Your task to perform on an android device: Go to calendar. Show me events next week Image 0: 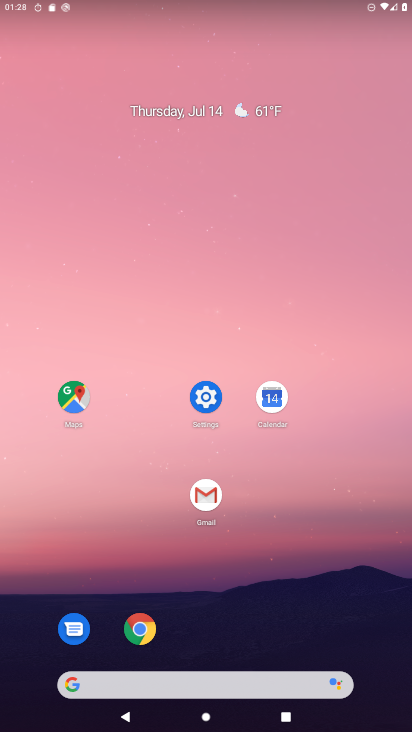
Step 0: click (274, 399)
Your task to perform on an android device: Go to calendar. Show me events next week Image 1: 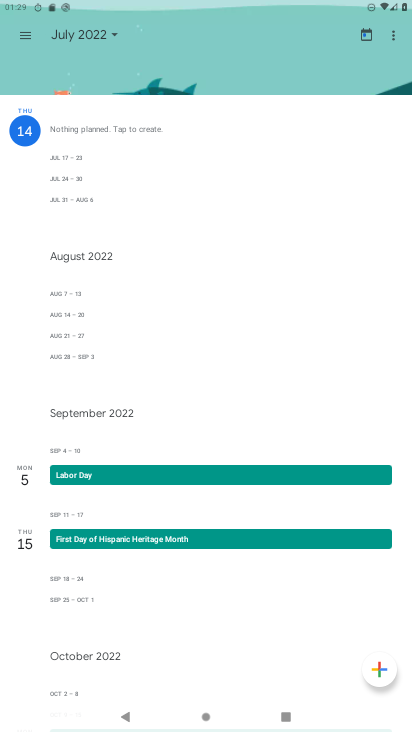
Step 1: click (26, 26)
Your task to perform on an android device: Go to calendar. Show me events next week Image 2: 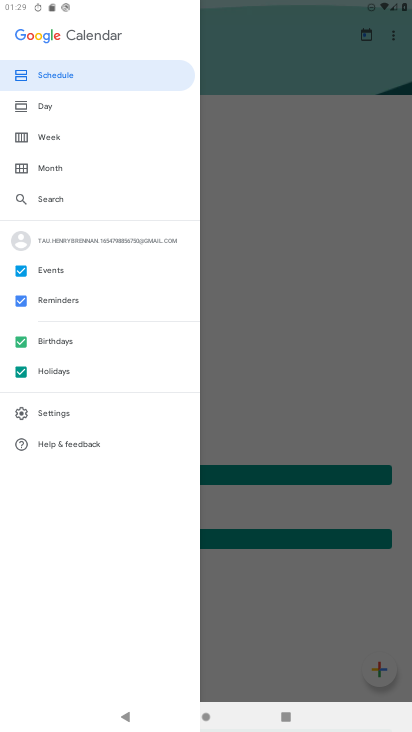
Step 2: click (50, 141)
Your task to perform on an android device: Go to calendar. Show me events next week Image 3: 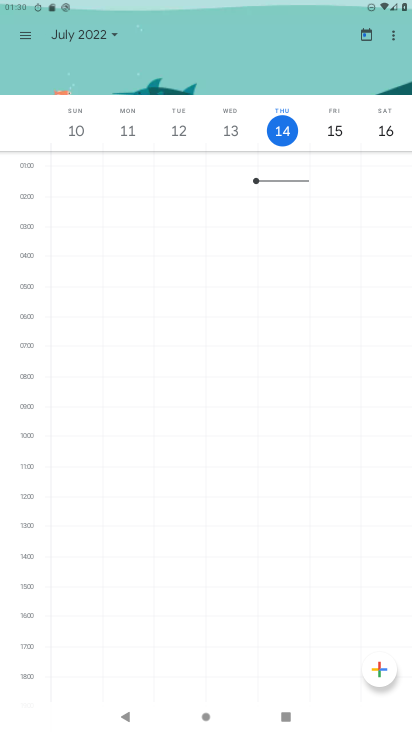
Step 3: click (113, 39)
Your task to perform on an android device: Go to calendar. Show me events next week Image 4: 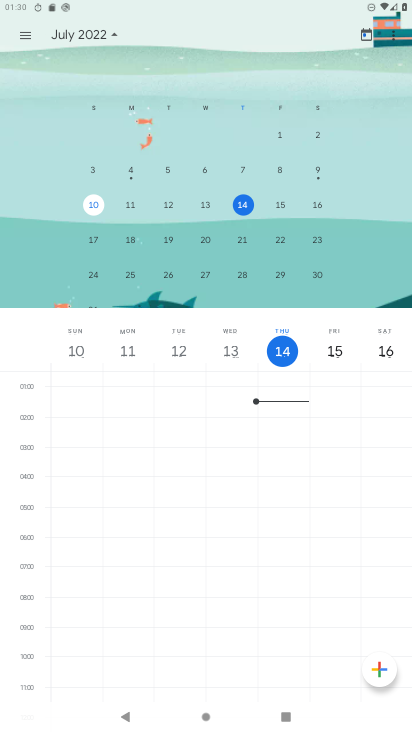
Step 4: click (238, 236)
Your task to perform on an android device: Go to calendar. Show me events next week Image 5: 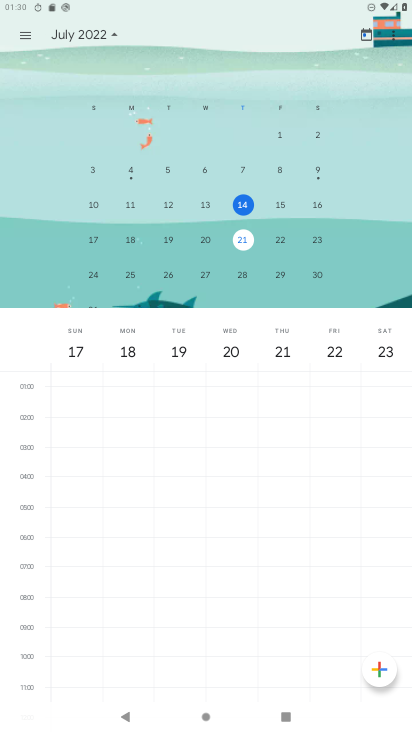
Step 5: task complete